Your task to perform on an android device: Open calendar and show me the second week of next month Image 0: 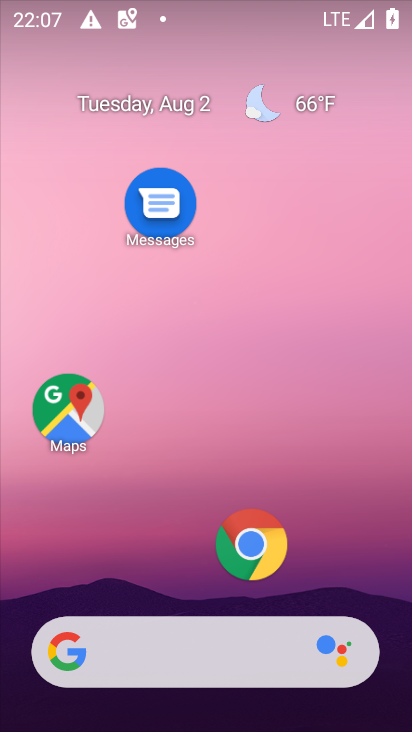
Step 0: drag from (179, 443) to (235, 76)
Your task to perform on an android device: Open calendar and show me the second week of next month Image 1: 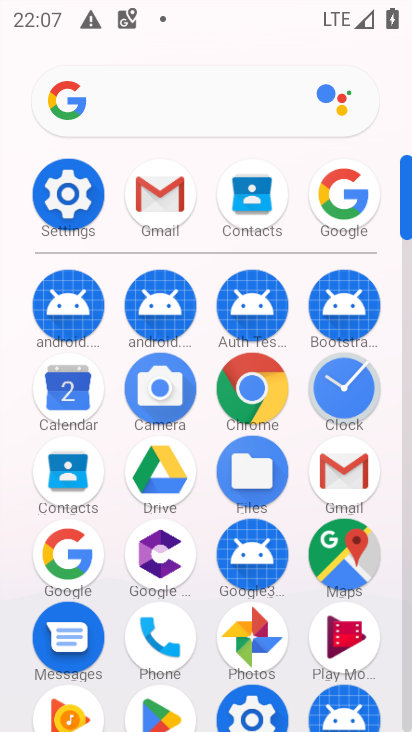
Step 1: click (79, 401)
Your task to perform on an android device: Open calendar and show me the second week of next month Image 2: 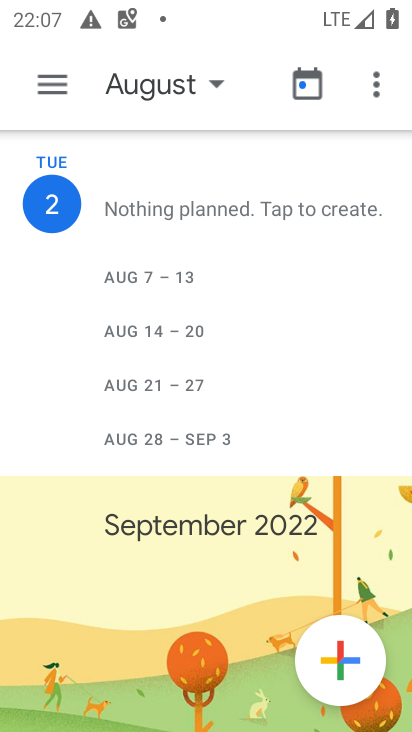
Step 2: click (219, 84)
Your task to perform on an android device: Open calendar and show me the second week of next month Image 3: 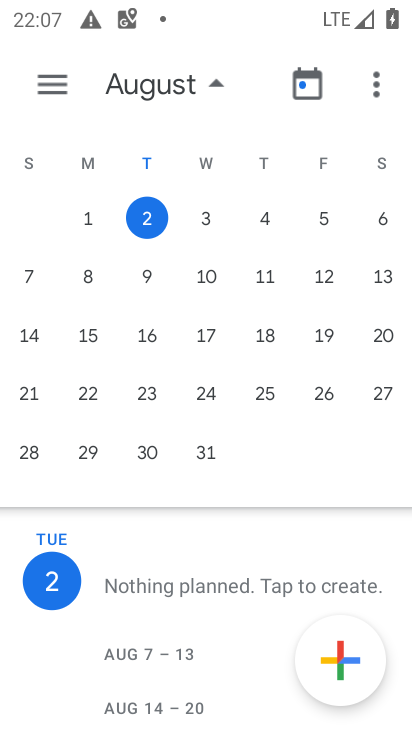
Step 3: drag from (341, 312) to (46, 319)
Your task to perform on an android device: Open calendar and show me the second week of next month Image 4: 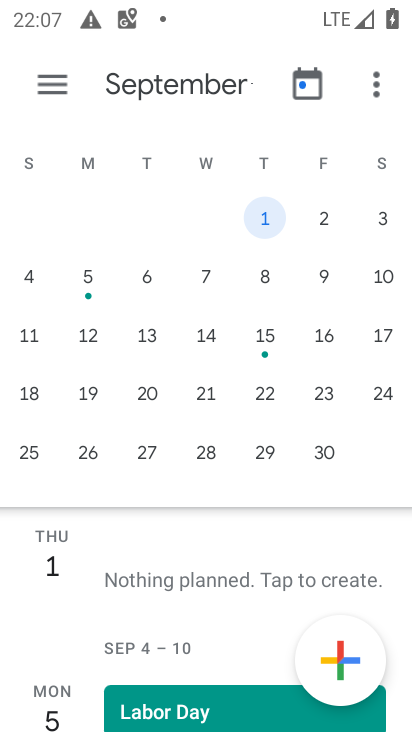
Step 4: click (45, 286)
Your task to perform on an android device: Open calendar and show me the second week of next month Image 5: 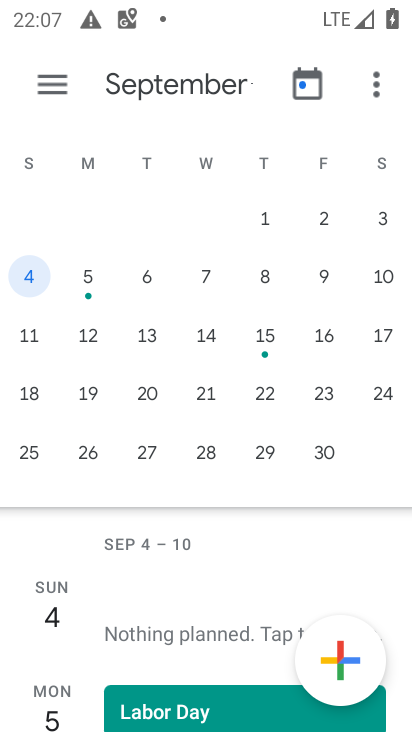
Step 5: task complete